Your task to perform on an android device: Open network settings Image 0: 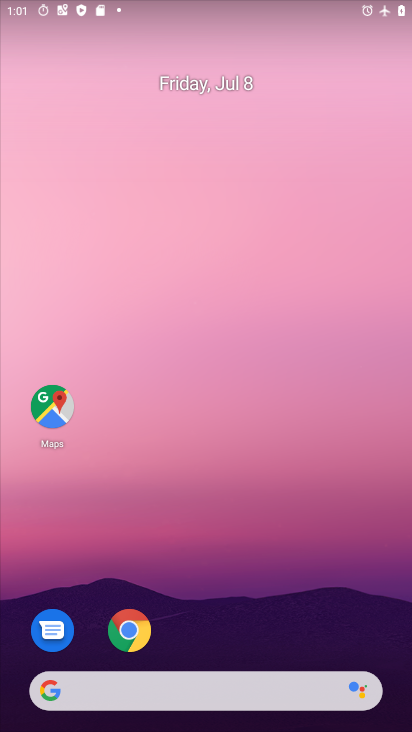
Step 0: drag from (217, 623) to (182, 143)
Your task to perform on an android device: Open network settings Image 1: 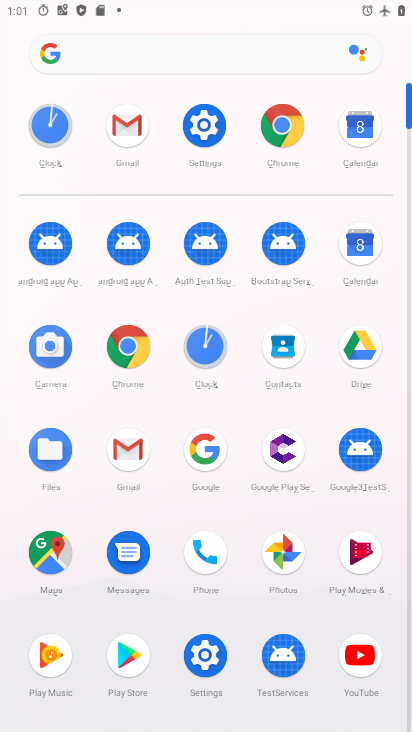
Step 1: click (199, 140)
Your task to perform on an android device: Open network settings Image 2: 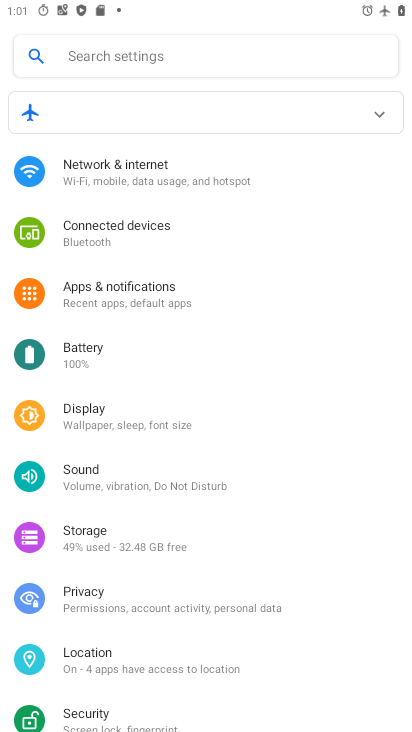
Step 2: click (195, 162)
Your task to perform on an android device: Open network settings Image 3: 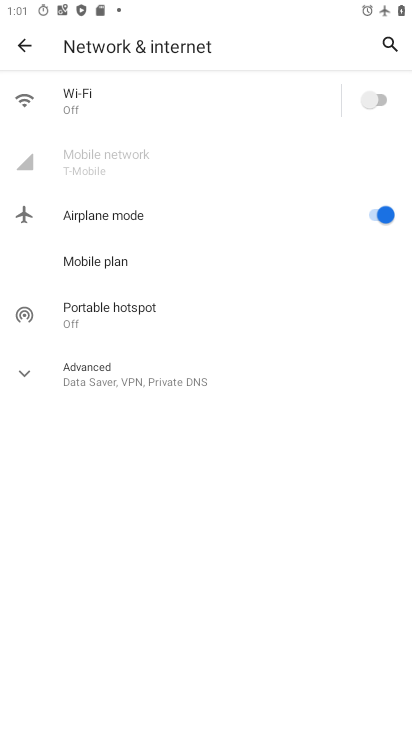
Step 3: task complete